Your task to perform on an android device: turn notification dots off Image 0: 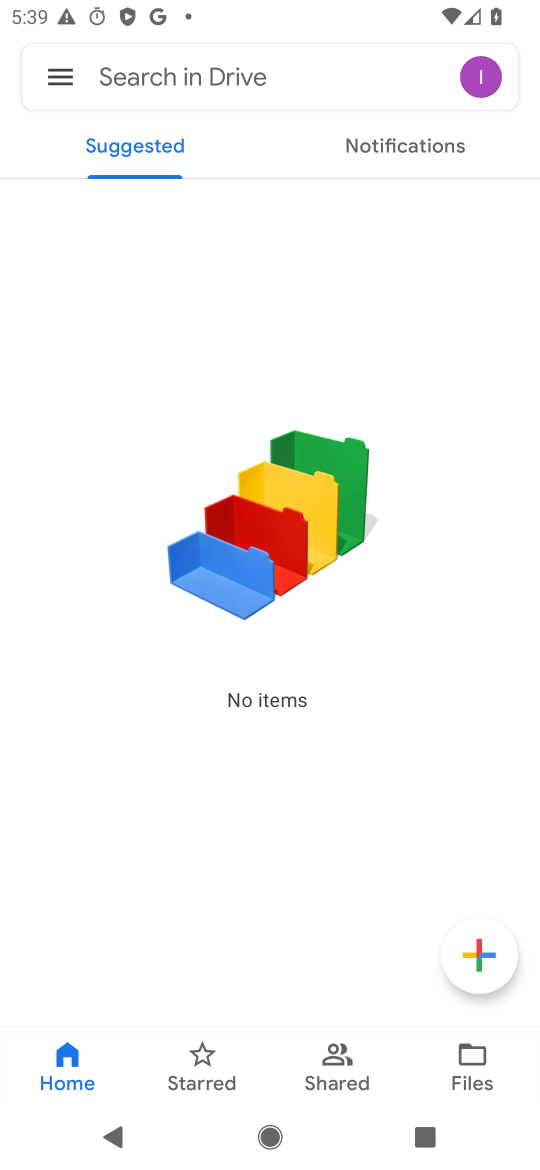
Step 0: press home button
Your task to perform on an android device: turn notification dots off Image 1: 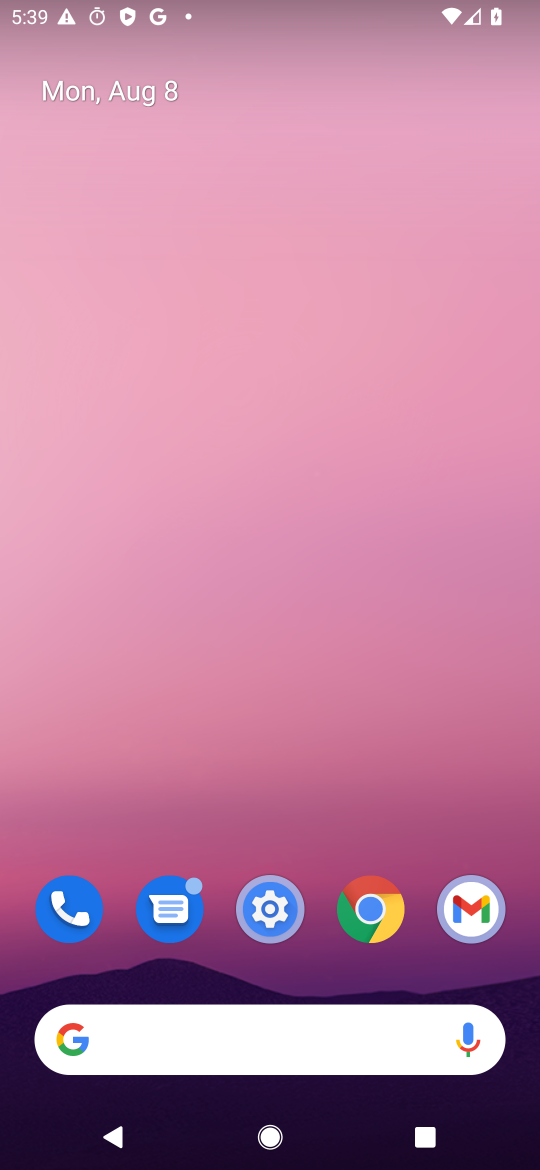
Step 1: click (261, 901)
Your task to perform on an android device: turn notification dots off Image 2: 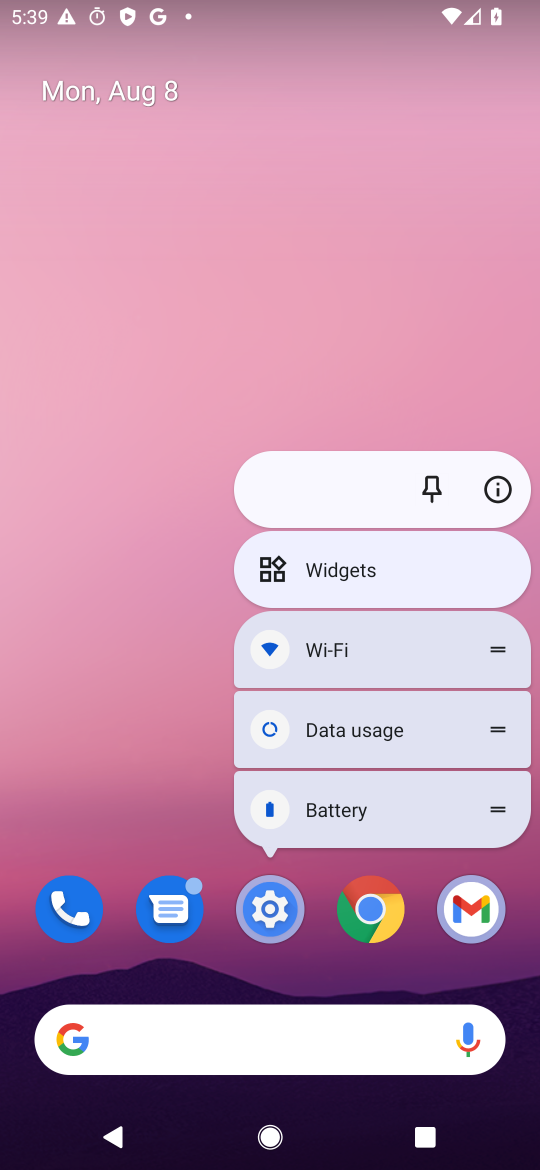
Step 2: click (255, 913)
Your task to perform on an android device: turn notification dots off Image 3: 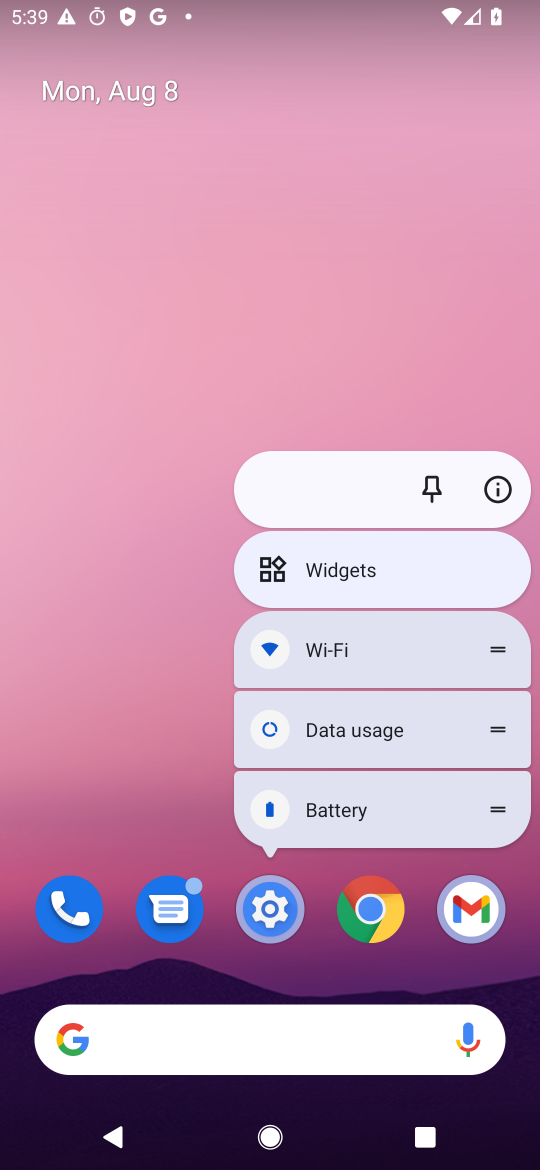
Step 3: click (255, 913)
Your task to perform on an android device: turn notification dots off Image 4: 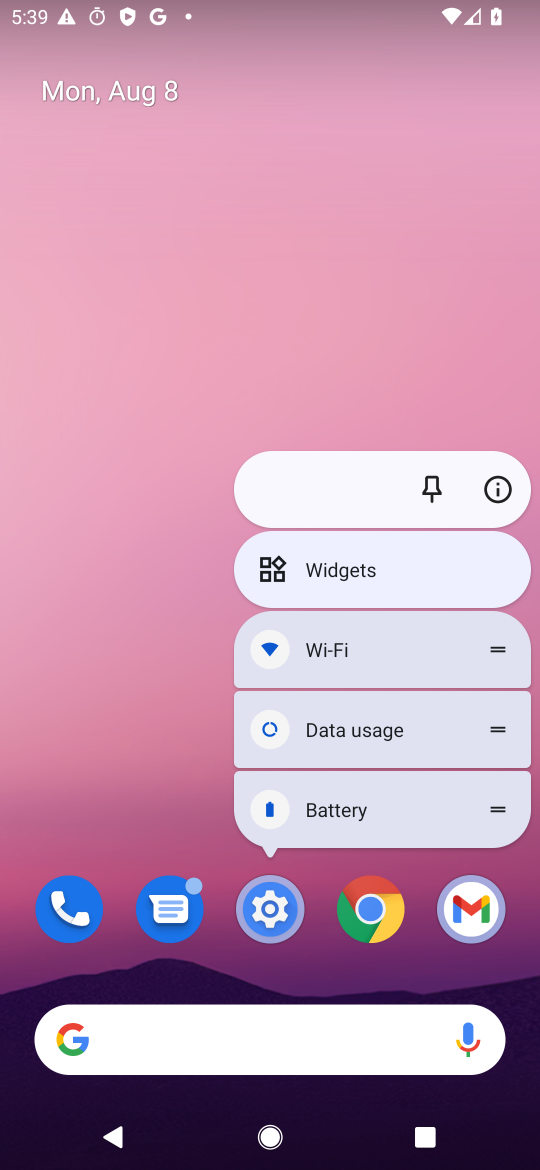
Step 4: click (255, 912)
Your task to perform on an android device: turn notification dots off Image 5: 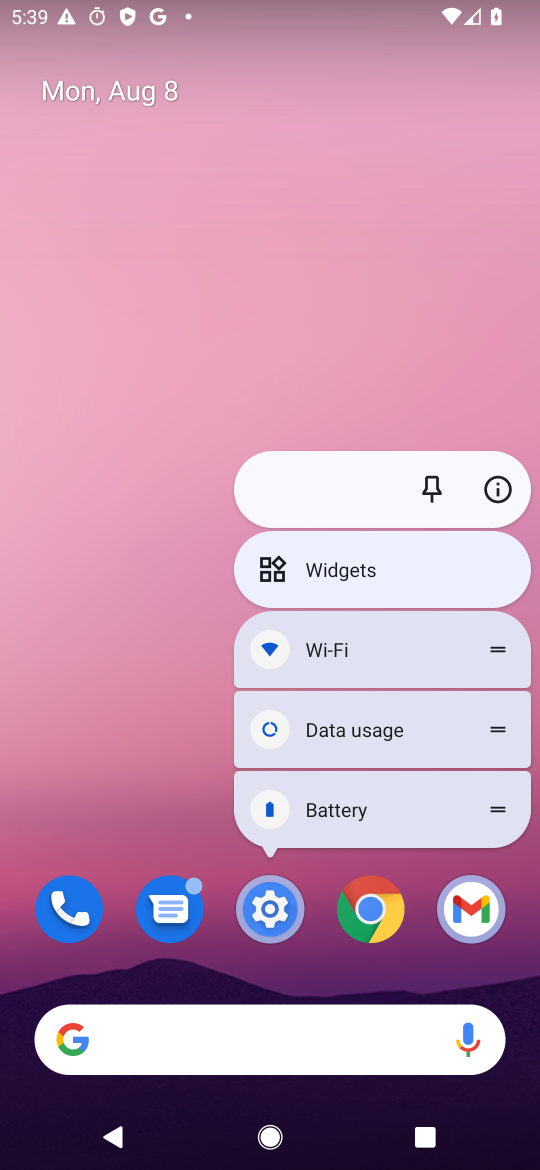
Step 5: click (261, 916)
Your task to perform on an android device: turn notification dots off Image 6: 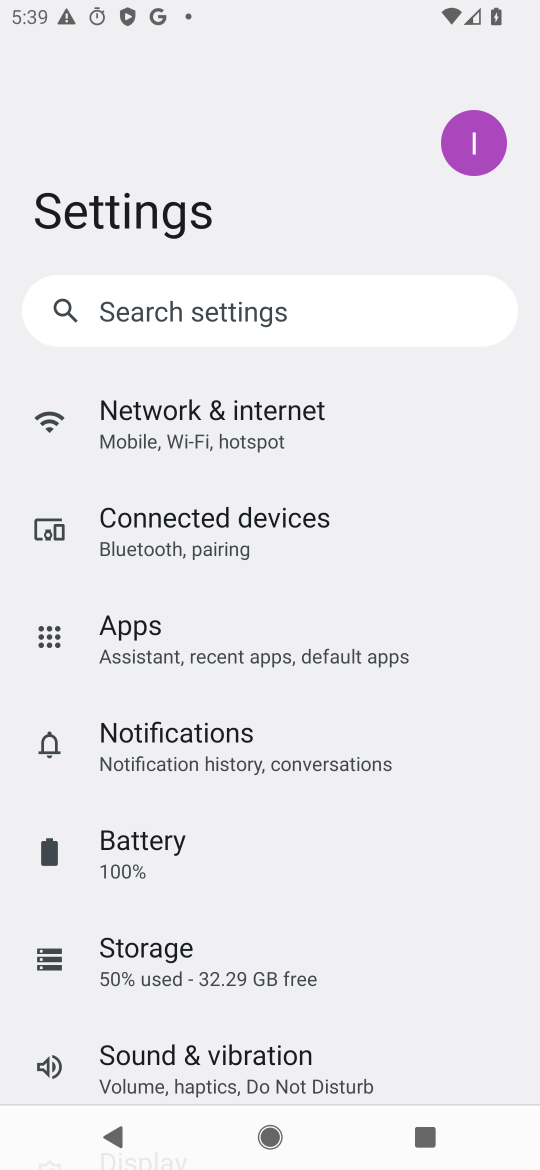
Step 6: click (228, 741)
Your task to perform on an android device: turn notification dots off Image 7: 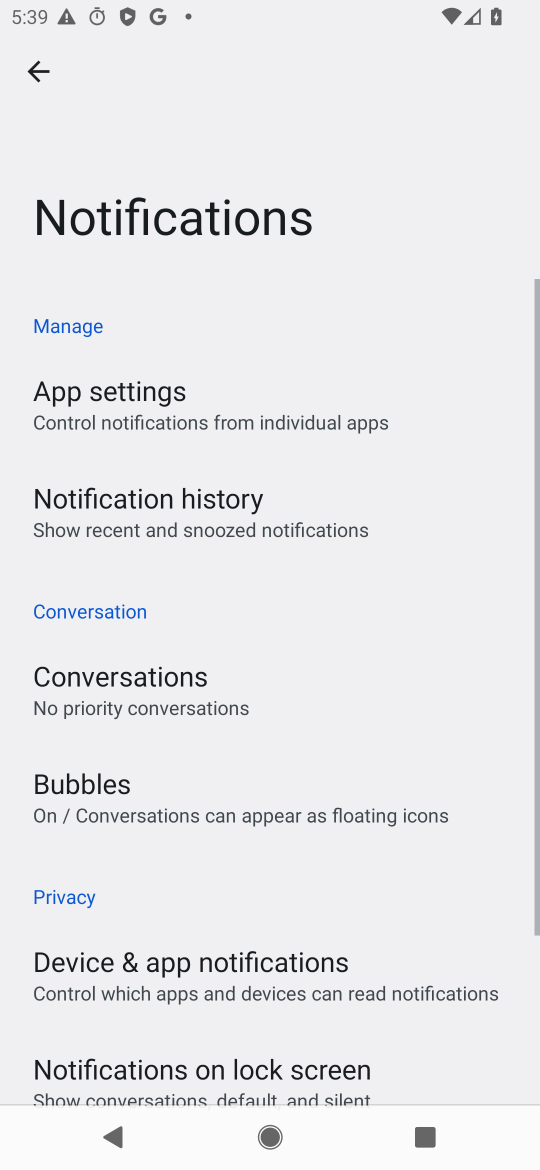
Step 7: drag from (283, 1013) to (434, 404)
Your task to perform on an android device: turn notification dots off Image 8: 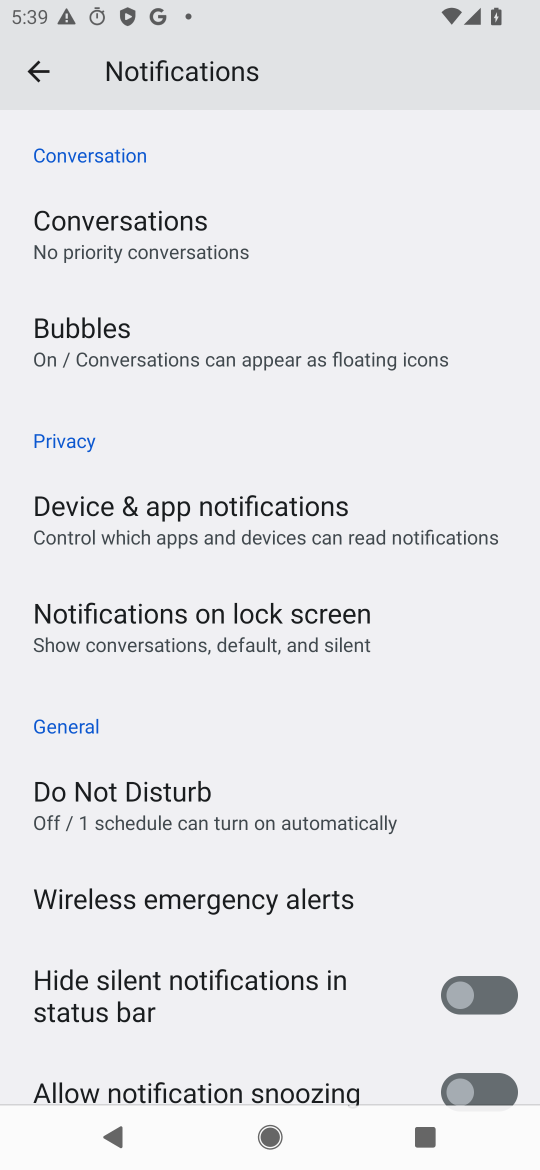
Step 8: drag from (268, 940) to (423, 166)
Your task to perform on an android device: turn notification dots off Image 9: 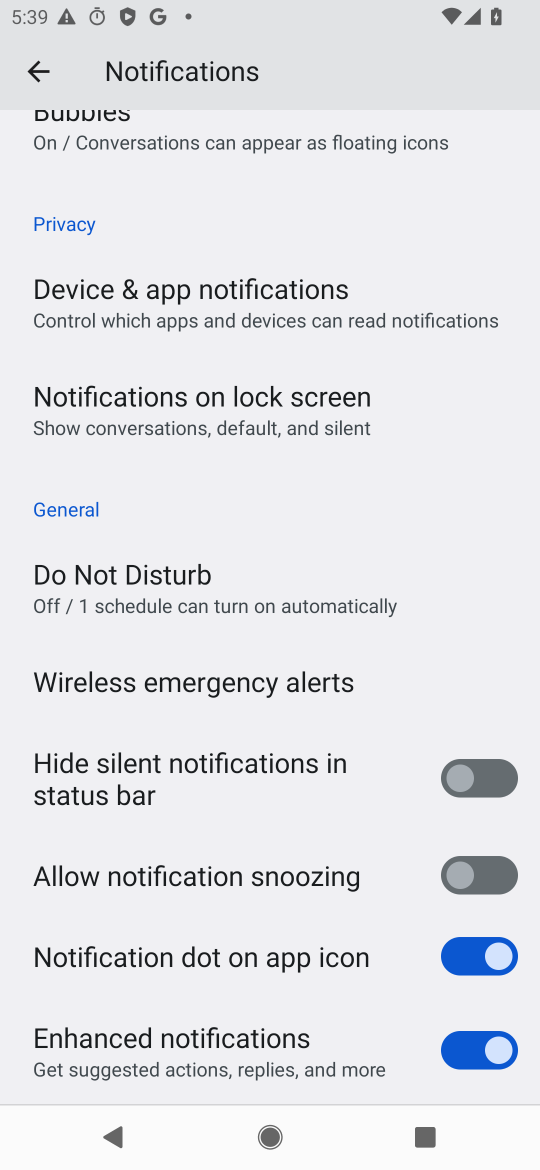
Step 9: click (477, 958)
Your task to perform on an android device: turn notification dots off Image 10: 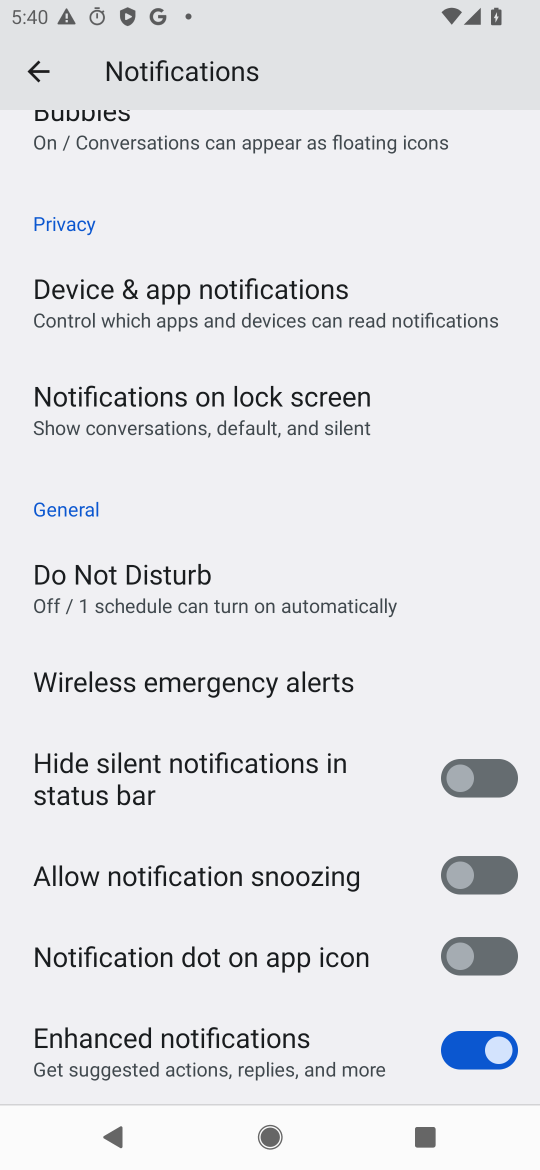
Step 10: task complete